Your task to perform on an android device: Go to CNN.com Image 0: 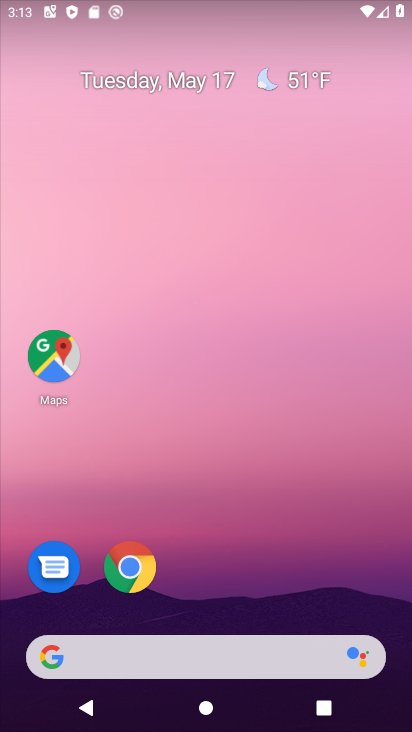
Step 0: click (139, 601)
Your task to perform on an android device: Go to CNN.com Image 1: 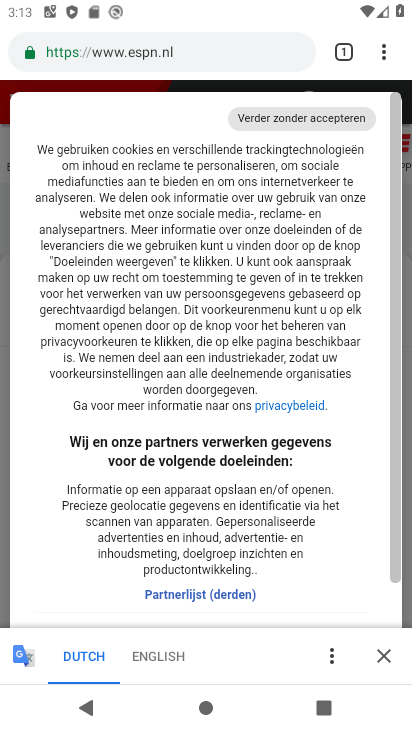
Step 1: click (193, 61)
Your task to perform on an android device: Go to CNN.com Image 2: 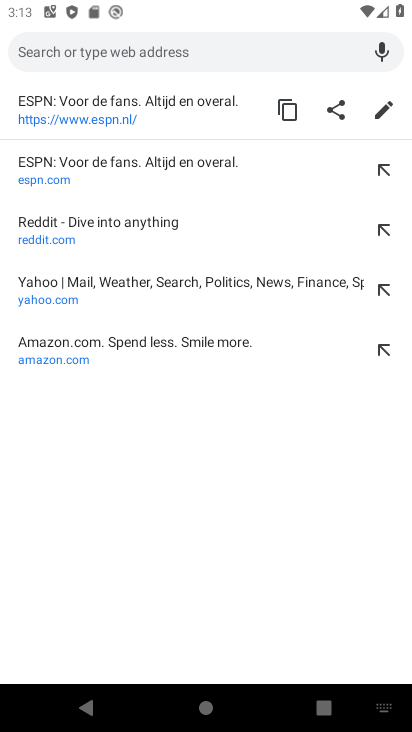
Step 2: type "cnn.com"
Your task to perform on an android device: Go to CNN.com Image 3: 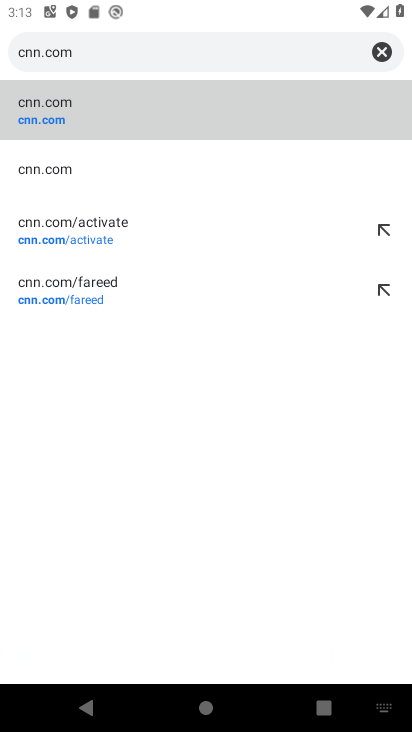
Step 3: click (82, 118)
Your task to perform on an android device: Go to CNN.com Image 4: 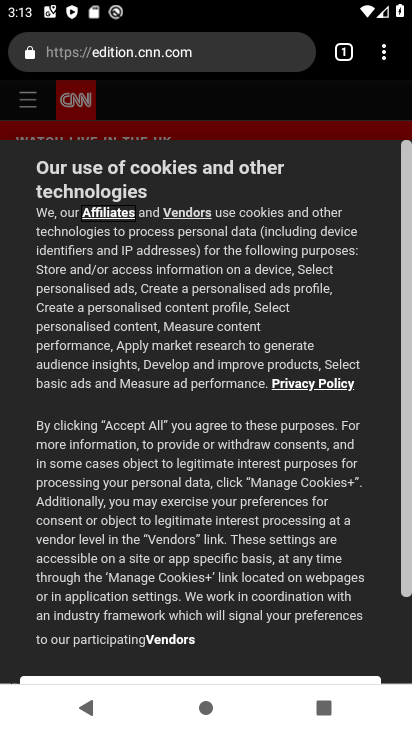
Step 4: task complete